Your task to perform on an android device: Go to sound settings Image 0: 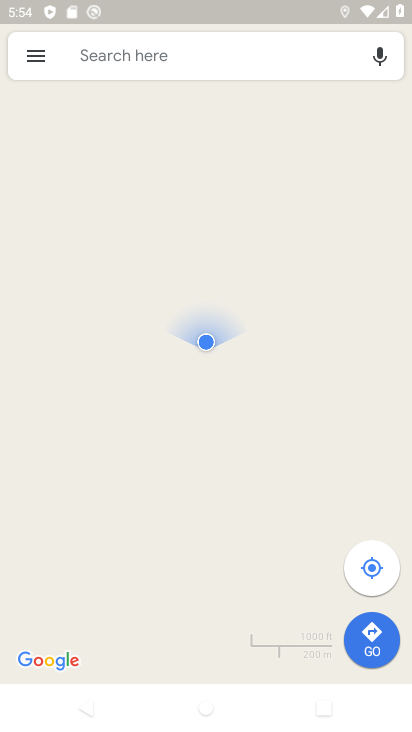
Step 0: press home button
Your task to perform on an android device: Go to sound settings Image 1: 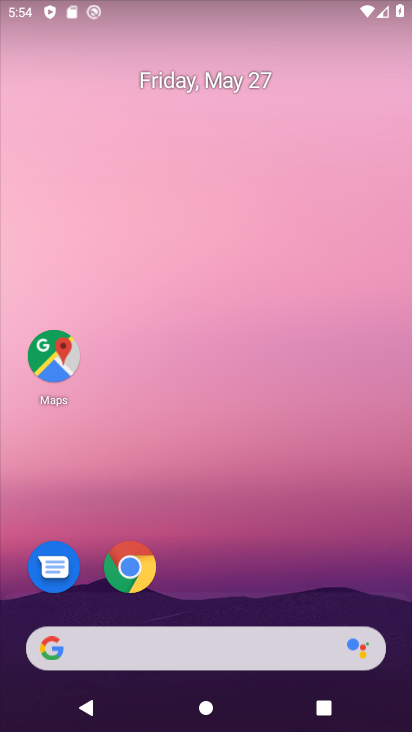
Step 1: drag from (205, 605) to (207, 213)
Your task to perform on an android device: Go to sound settings Image 2: 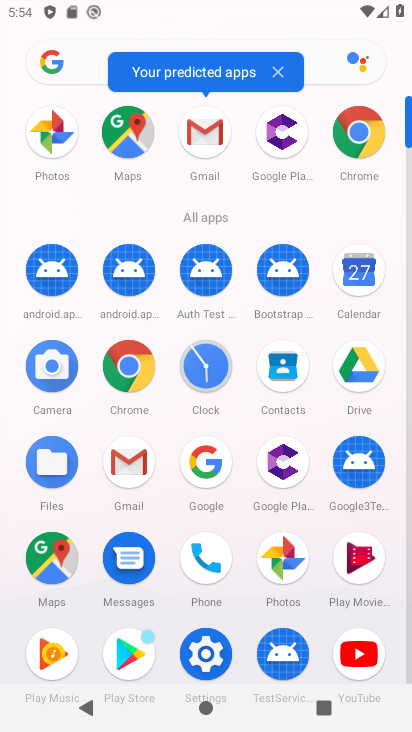
Step 2: click (193, 661)
Your task to perform on an android device: Go to sound settings Image 3: 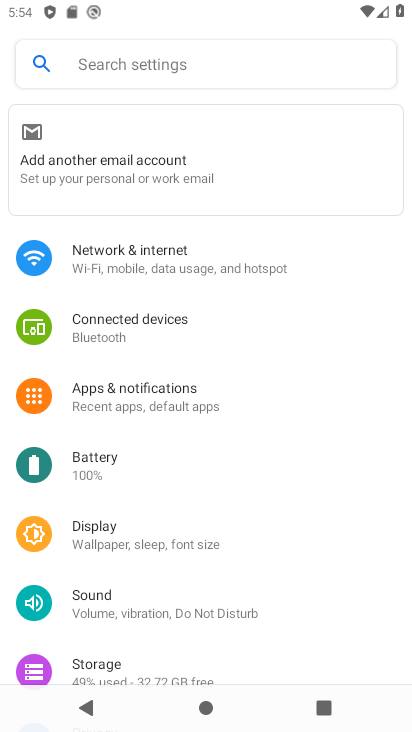
Step 3: click (88, 607)
Your task to perform on an android device: Go to sound settings Image 4: 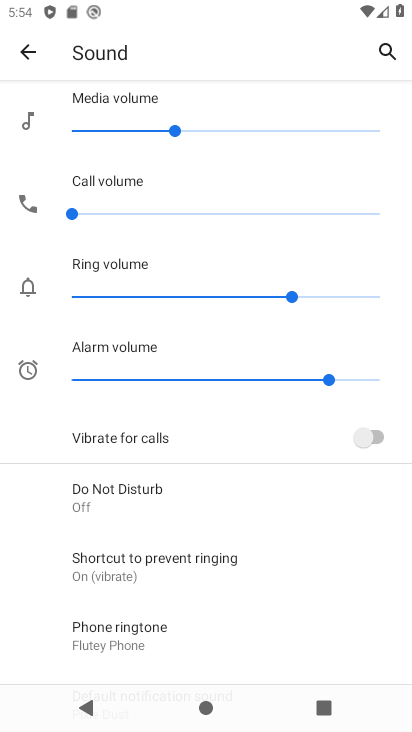
Step 4: task complete